Your task to perform on an android device: toggle javascript in the chrome app Image 0: 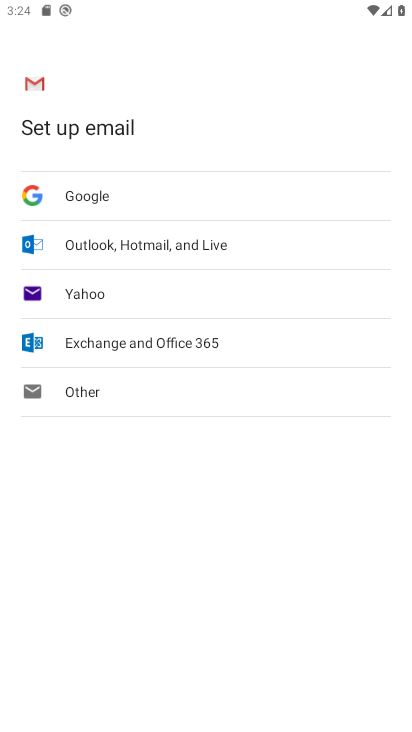
Step 0: drag from (182, 551) to (253, 160)
Your task to perform on an android device: toggle javascript in the chrome app Image 1: 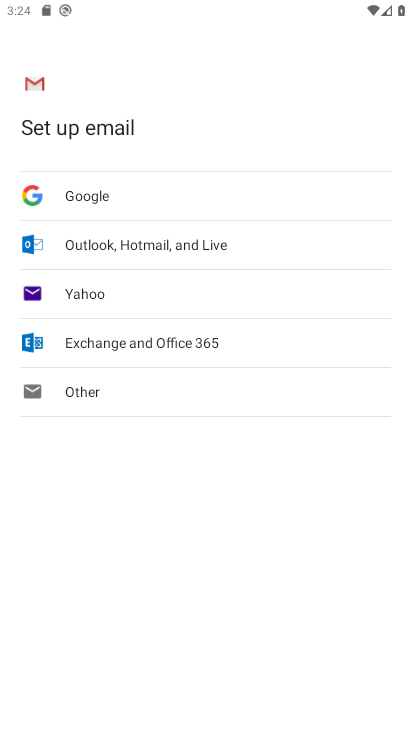
Step 1: press home button
Your task to perform on an android device: toggle javascript in the chrome app Image 2: 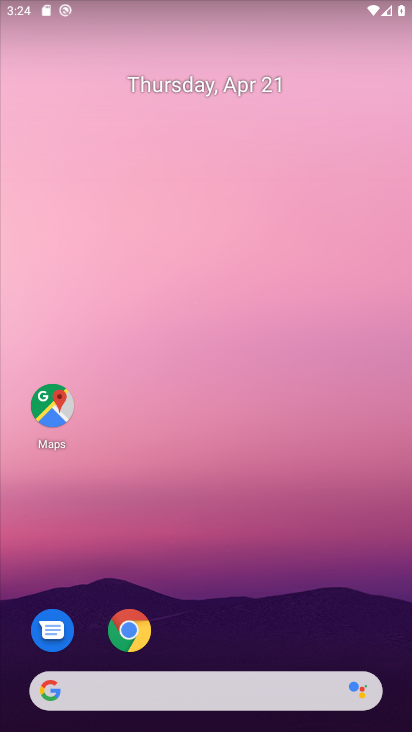
Step 2: drag from (174, 631) to (249, 0)
Your task to perform on an android device: toggle javascript in the chrome app Image 3: 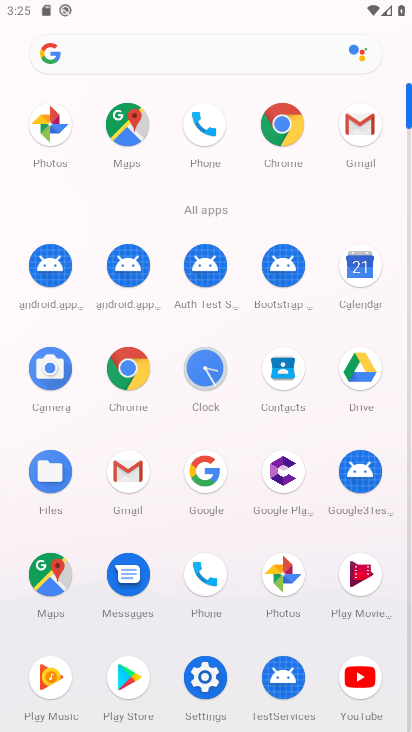
Step 3: click (127, 370)
Your task to perform on an android device: toggle javascript in the chrome app Image 4: 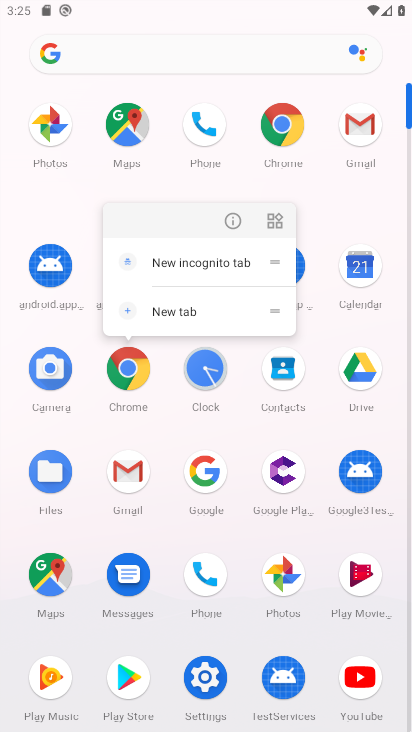
Step 4: click (233, 225)
Your task to perform on an android device: toggle javascript in the chrome app Image 5: 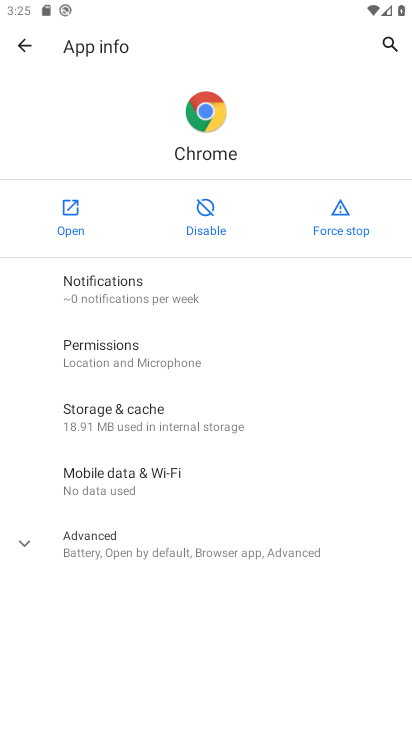
Step 5: click (59, 209)
Your task to perform on an android device: toggle javascript in the chrome app Image 6: 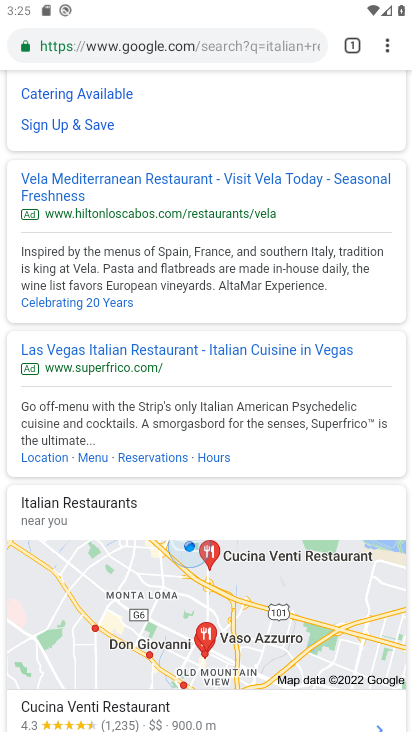
Step 6: drag from (386, 55) to (274, 493)
Your task to perform on an android device: toggle javascript in the chrome app Image 7: 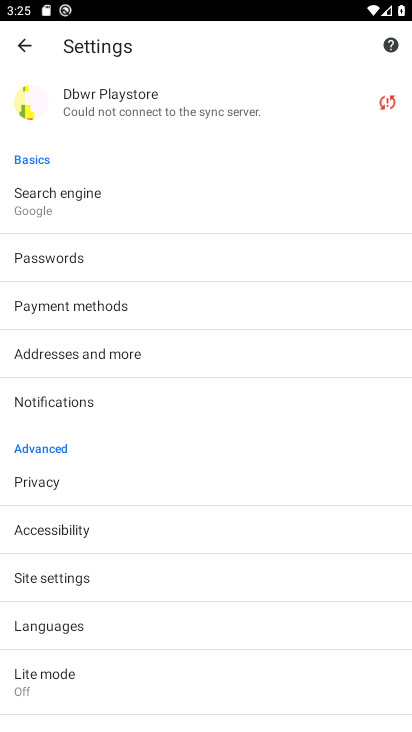
Step 7: click (111, 568)
Your task to perform on an android device: toggle javascript in the chrome app Image 8: 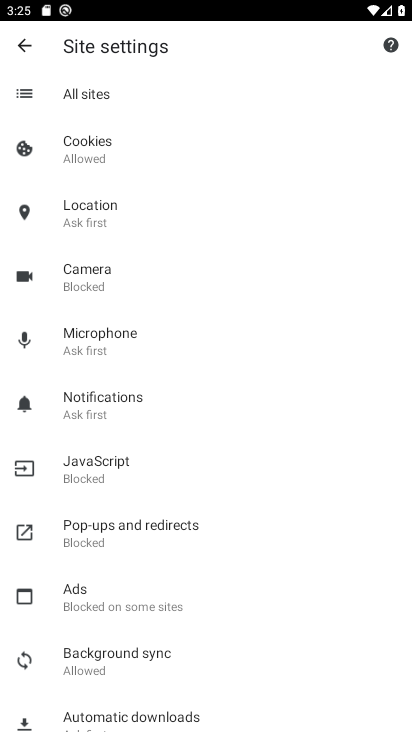
Step 8: click (105, 468)
Your task to perform on an android device: toggle javascript in the chrome app Image 9: 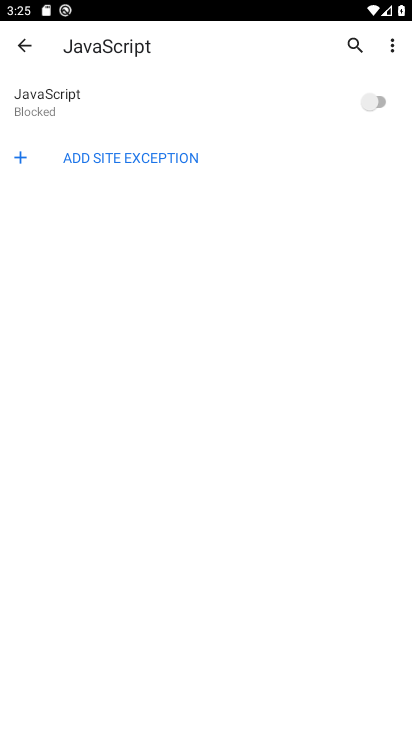
Step 9: click (366, 101)
Your task to perform on an android device: toggle javascript in the chrome app Image 10: 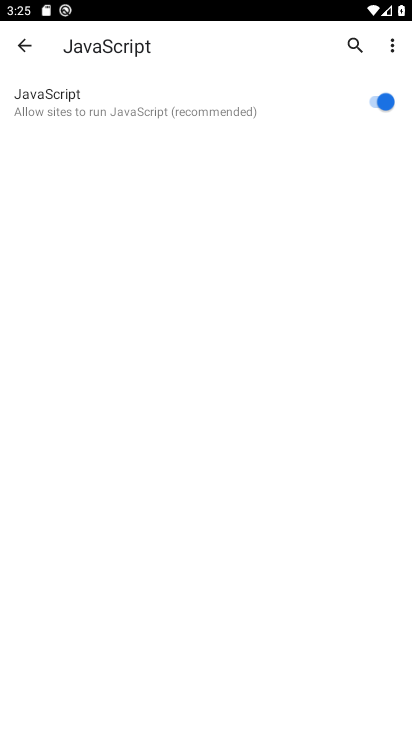
Step 10: task complete